Your task to perform on an android device: uninstall "Lyft - Rideshare, Bikes, Scooters & Transit" Image 0: 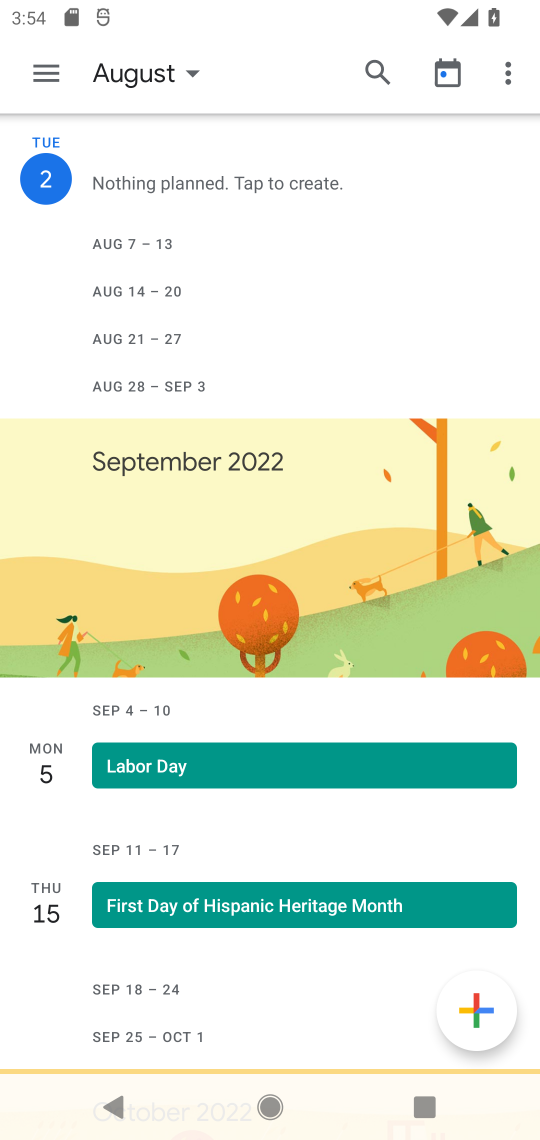
Step 0: press home button
Your task to perform on an android device: uninstall "Lyft - Rideshare, Bikes, Scooters & Transit" Image 1: 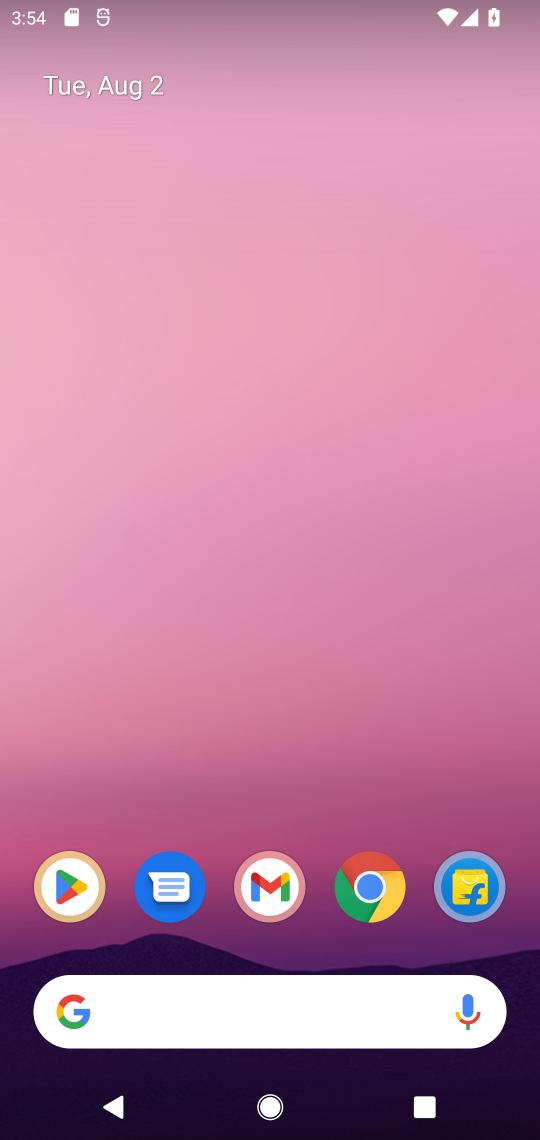
Step 1: click (63, 878)
Your task to perform on an android device: uninstall "Lyft - Rideshare, Bikes, Scooters & Transit" Image 2: 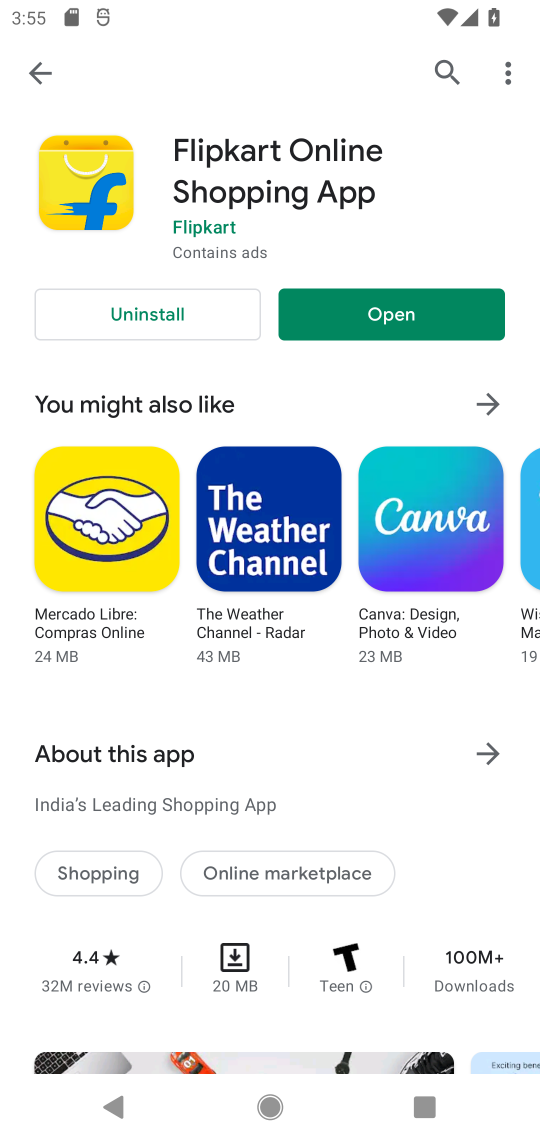
Step 2: click (52, 64)
Your task to perform on an android device: uninstall "Lyft - Rideshare, Bikes, Scooters & Transit" Image 3: 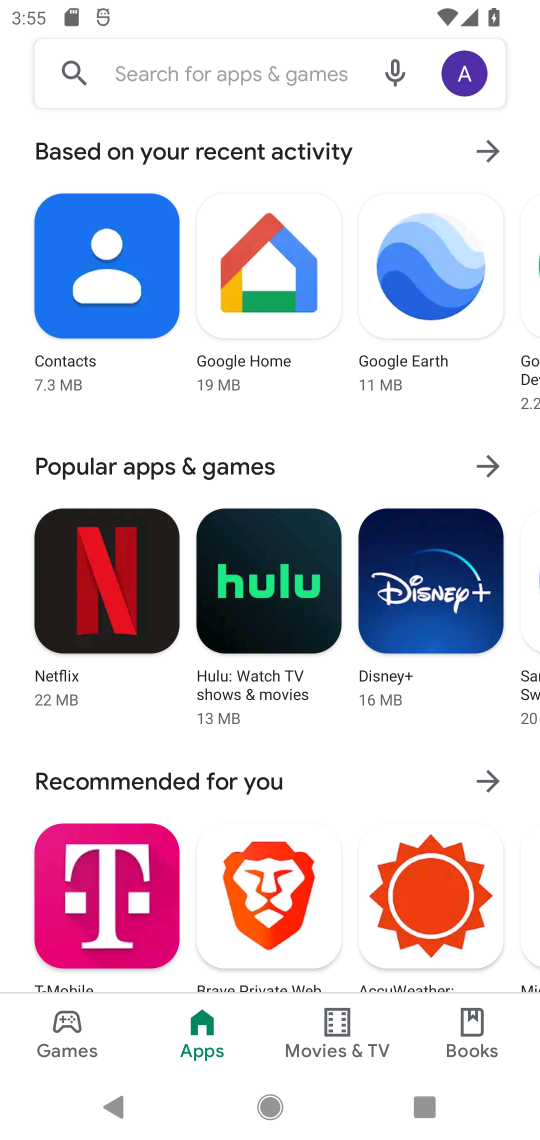
Step 3: click (131, 73)
Your task to perform on an android device: uninstall "Lyft - Rideshare, Bikes, Scooters & Transit" Image 4: 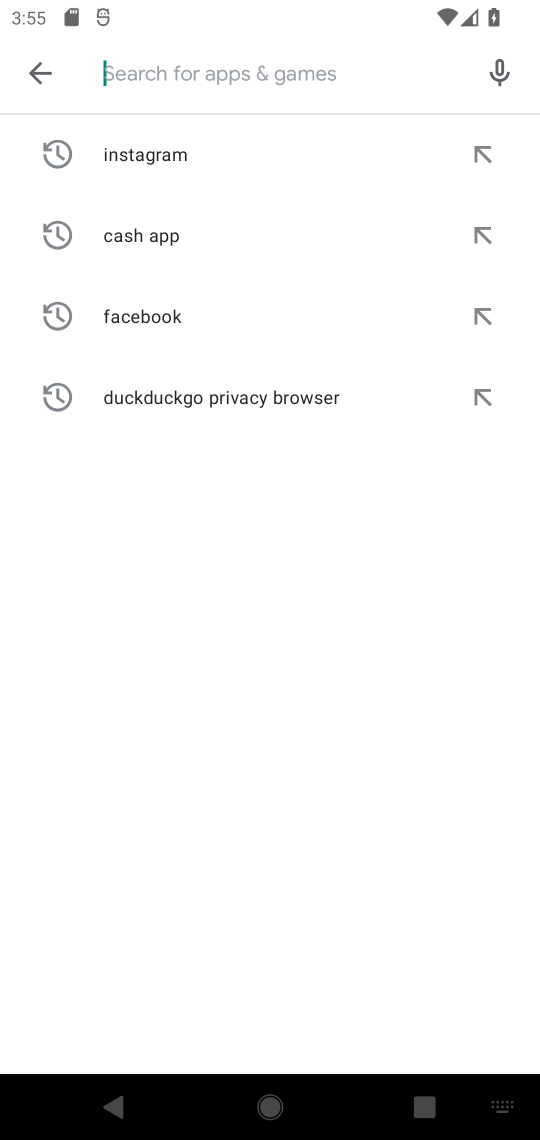
Step 4: type "Lyft - Rideshare, Bikes, Scooters & Transit"
Your task to perform on an android device: uninstall "Lyft - Rideshare, Bikes, Scooters & Transit" Image 5: 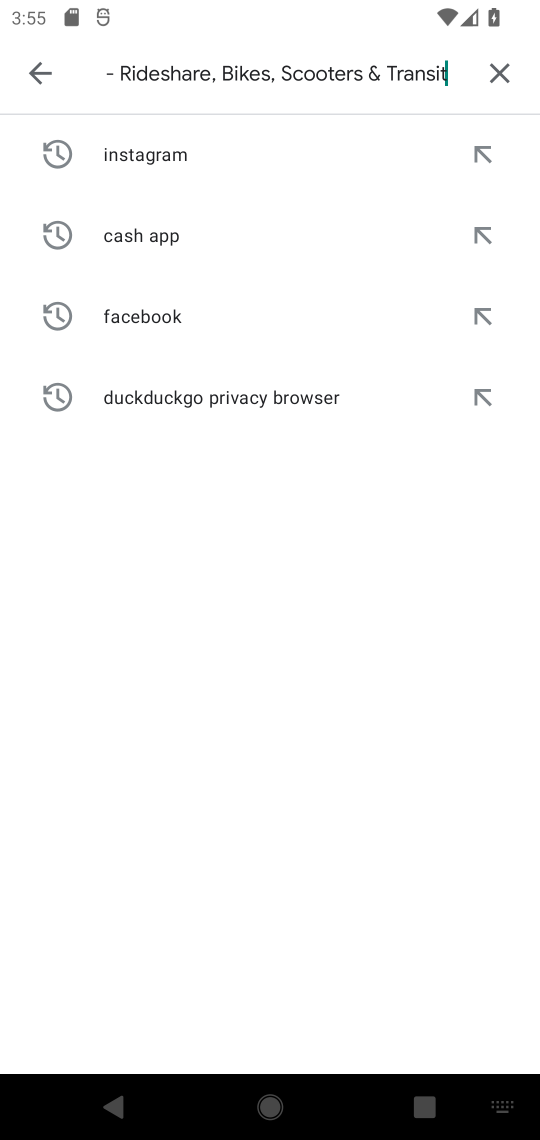
Step 5: type ""
Your task to perform on an android device: uninstall "Lyft - Rideshare, Bikes, Scooters & Transit" Image 6: 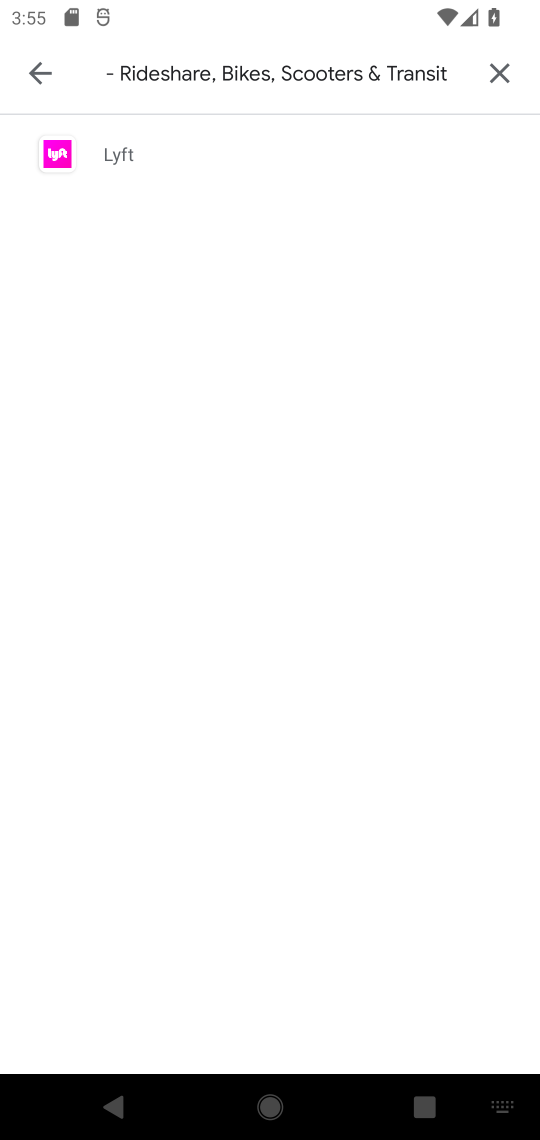
Step 6: click (120, 153)
Your task to perform on an android device: uninstall "Lyft - Rideshare, Bikes, Scooters & Transit" Image 7: 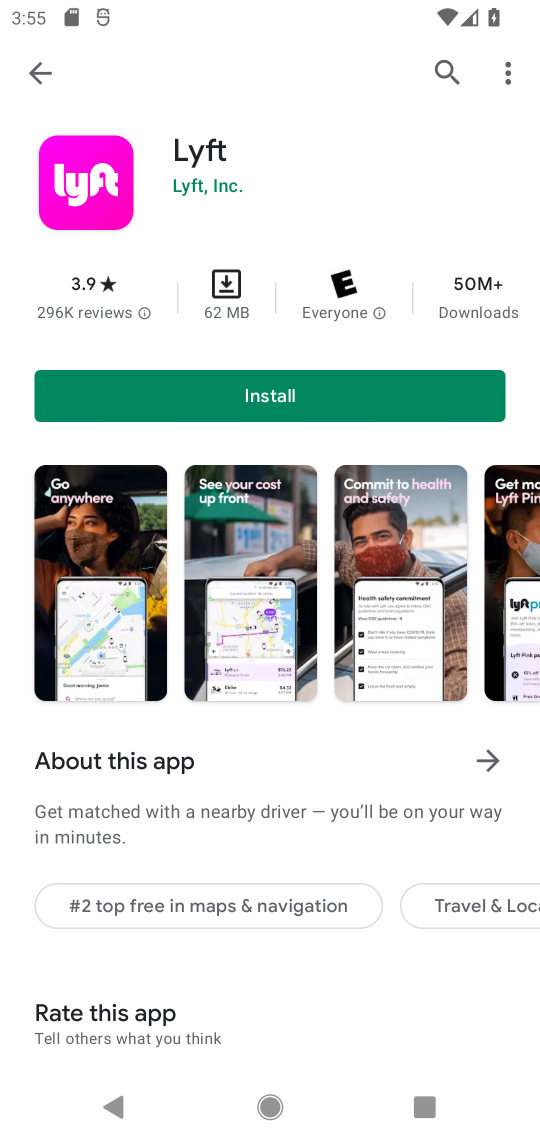
Step 7: click (250, 387)
Your task to perform on an android device: uninstall "Lyft - Rideshare, Bikes, Scooters & Transit" Image 8: 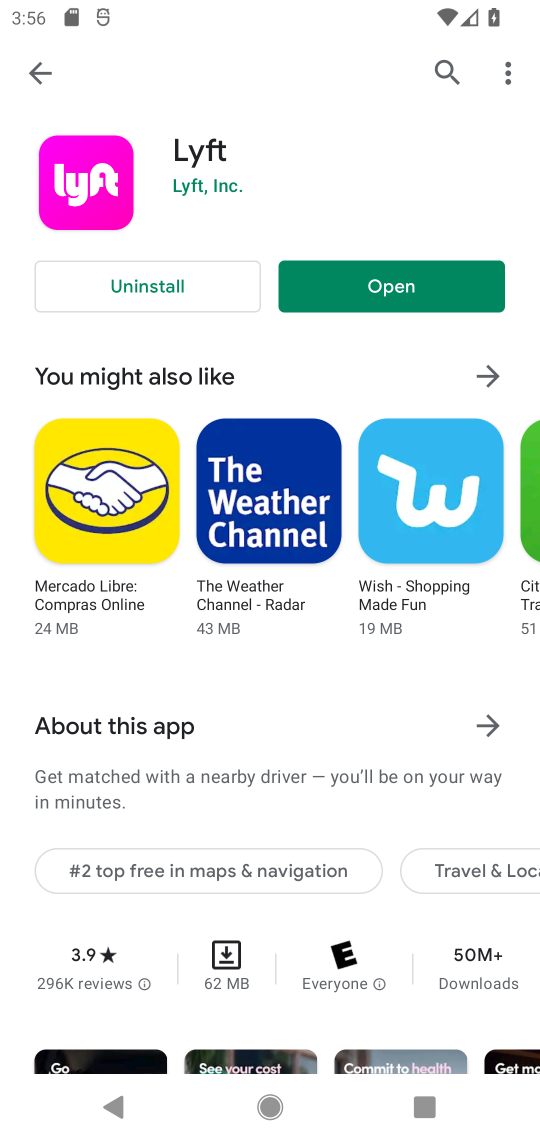
Step 8: click (140, 277)
Your task to perform on an android device: uninstall "Lyft - Rideshare, Bikes, Scooters & Transit" Image 9: 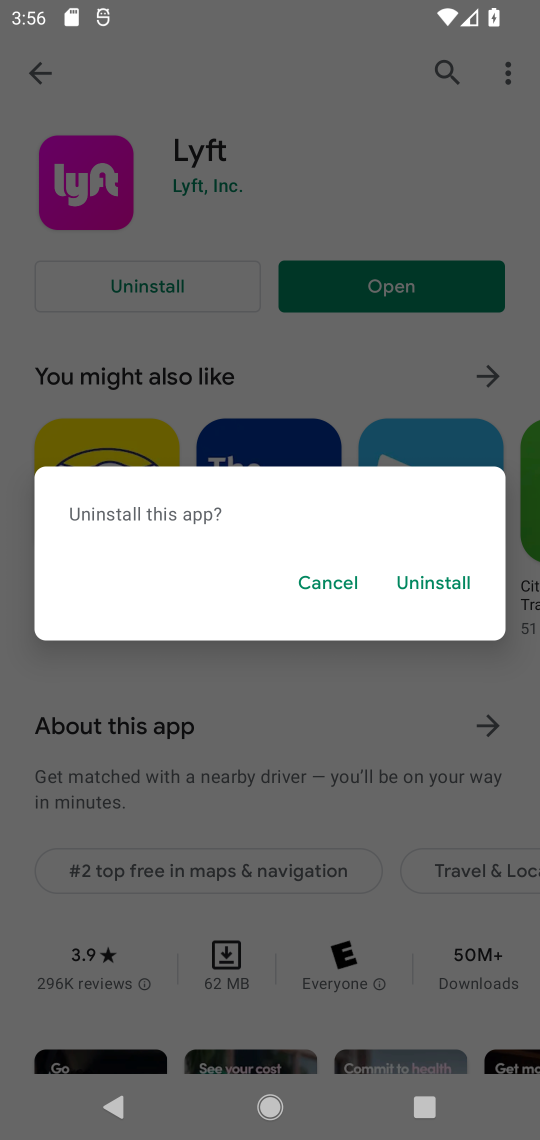
Step 9: click (415, 570)
Your task to perform on an android device: uninstall "Lyft - Rideshare, Bikes, Scooters & Transit" Image 10: 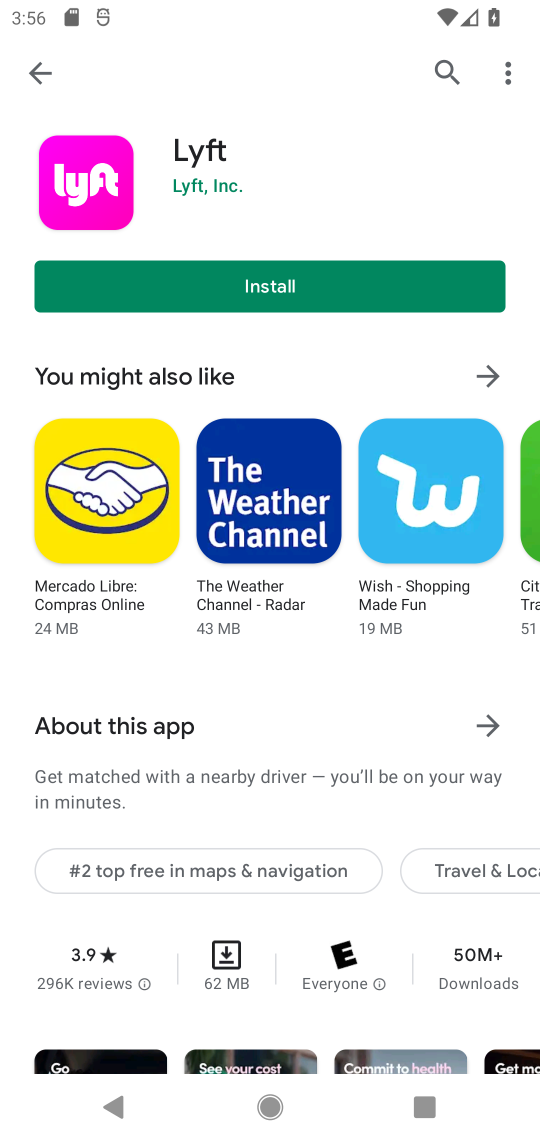
Step 10: task complete